Your task to perform on an android device: Go to Google maps Image 0: 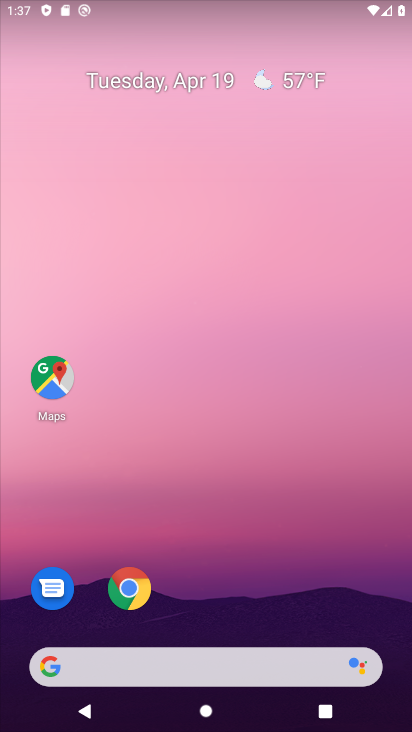
Step 0: click (60, 381)
Your task to perform on an android device: Go to Google maps Image 1: 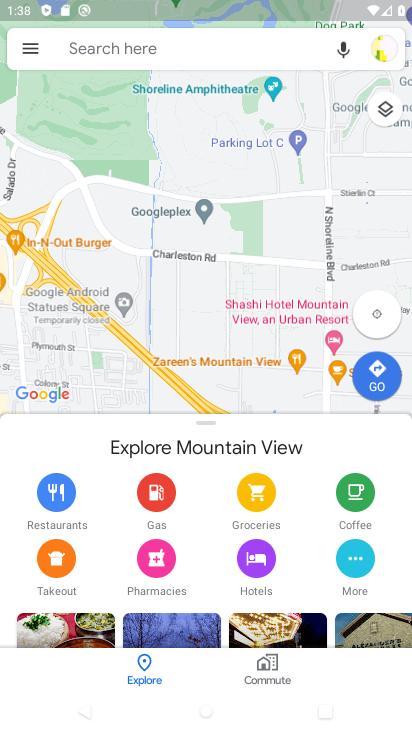
Step 1: task complete